Your task to perform on an android device: Open calendar and show me the first week of next month Image 0: 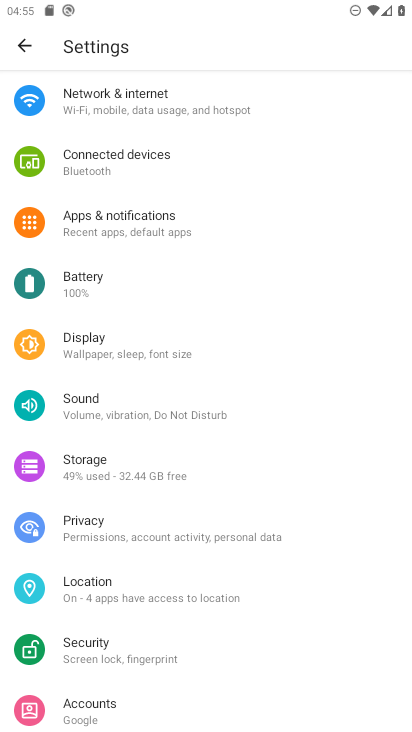
Step 0: press home button
Your task to perform on an android device: Open calendar and show me the first week of next month Image 1: 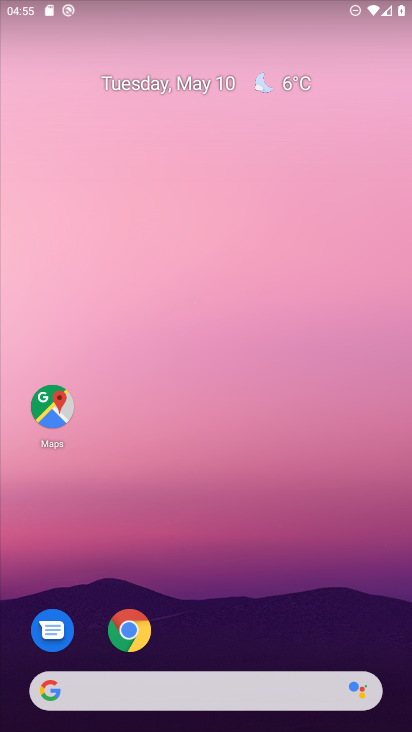
Step 1: click (175, 106)
Your task to perform on an android device: Open calendar and show me the first week of next month Image 2: 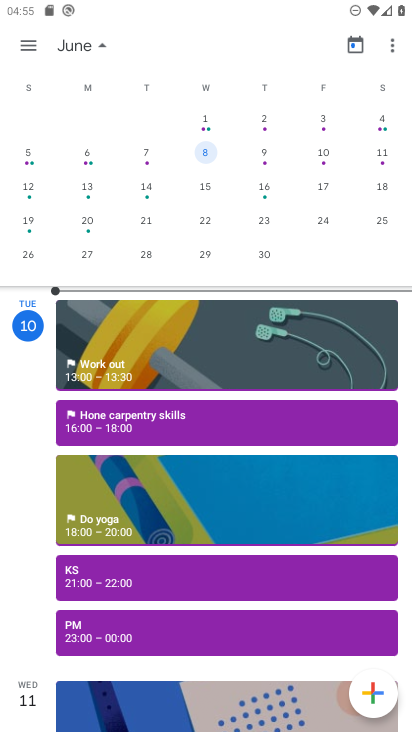
Step 2: click (205, 115)
Your task to perform on an android device: Open calendar and show me the first week of next month Image 3: 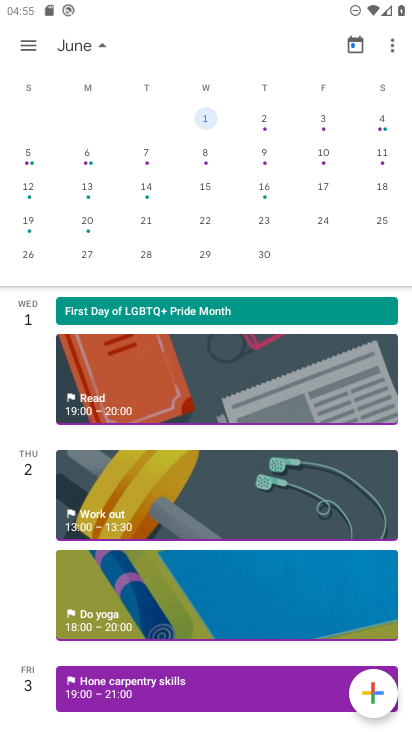
Step 3: task complete